Your task to perform on an android device: manage bookmarks in the chrome app Image 0: 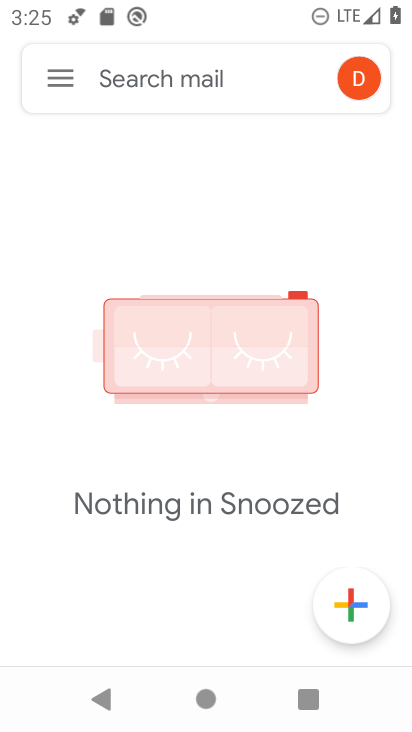
Step 0: press home button
Your task to perform on an android device: manage bookmarks in the chrome app Image 1: 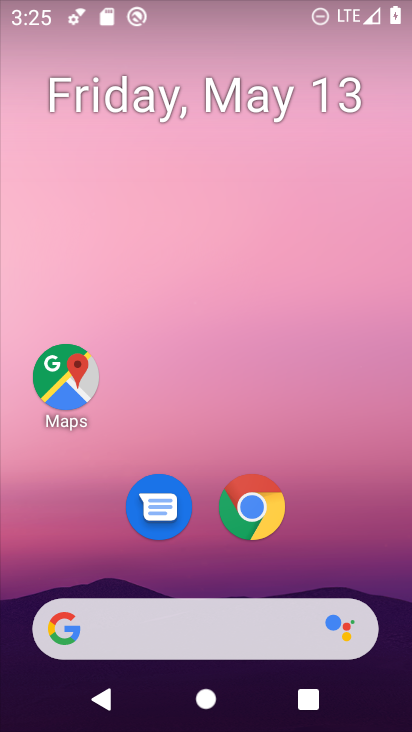
Step 1: click (265, 516)
Your task to perform on an android device: manage bookmarks in the chrome app Image 2: 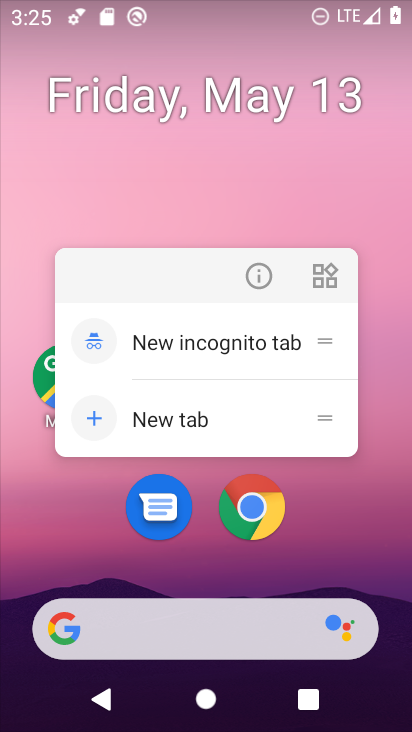
Step 2: click (263, 517)
Your task to perform on an android device: manage bookmarks in the chrome app Image 3: 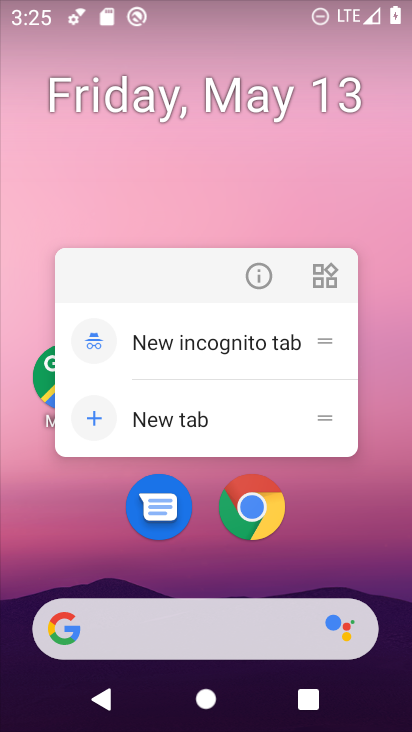
Step 3: click (263, 517)
Your task to perform on an android device: manage bookmarks in the chrome app Image 4: 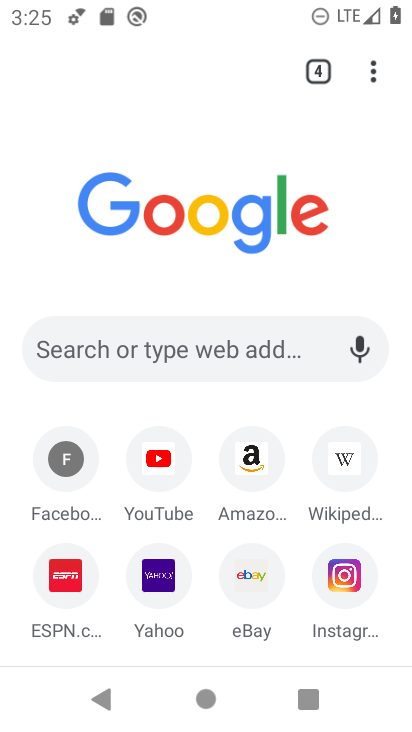
Step 4: click (363, 56)
Your task to perform on an android device: manage bookmarks in the chrome app Image 5: 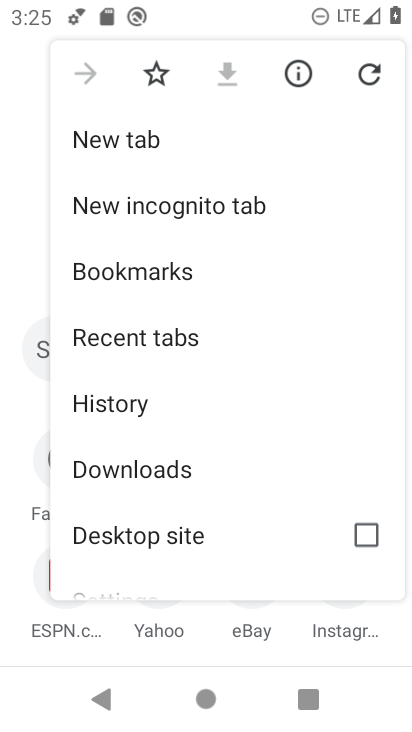
Step 5: click (207, 275)
Your task to perform on an android device: manage bookmarks in the chrome app Image 6: 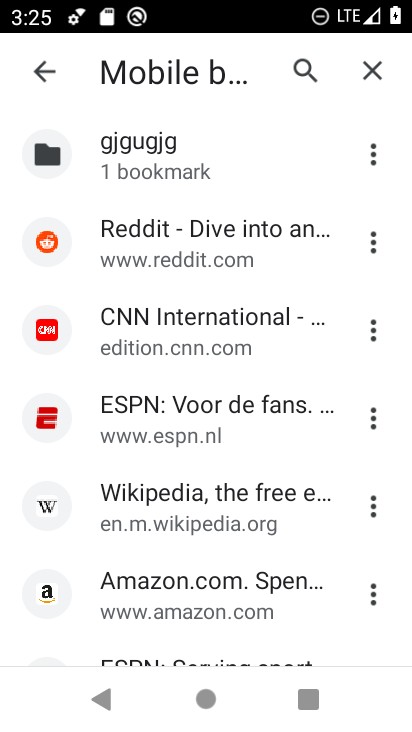
Step 6: drag from (194, 454) to (242, 141)
Your task to perform on an android device: manage bookmarks in the chrome app Image 7: 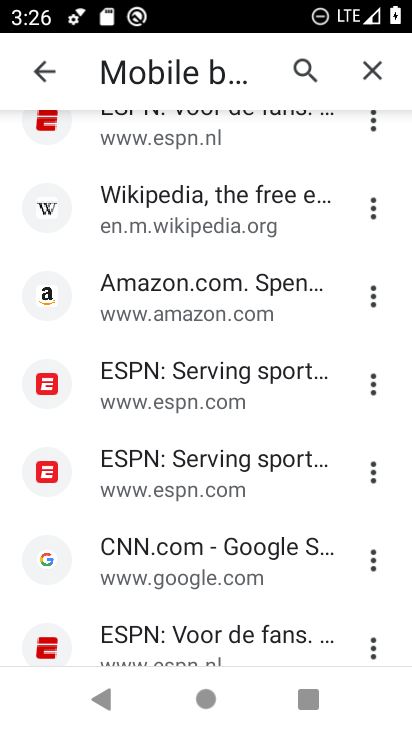
Step 7: click (371, 285)
Your task to perform on an android device: manage bookmarks in the chrome app Image 8: 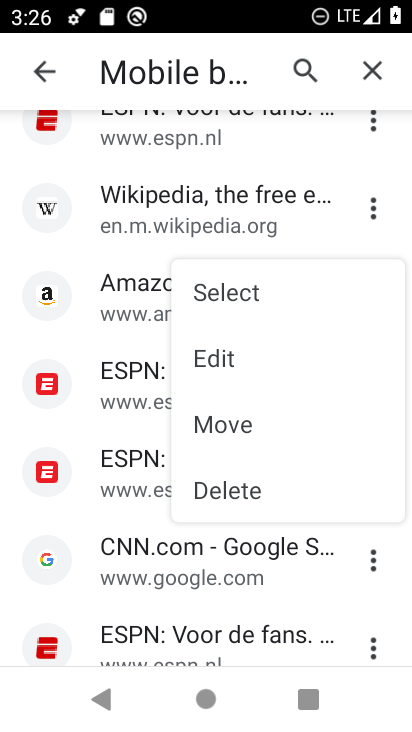
Step 8: click (292, 429)
Your task to perform on an android device: manage bookmarks in the chrome app Image 9: 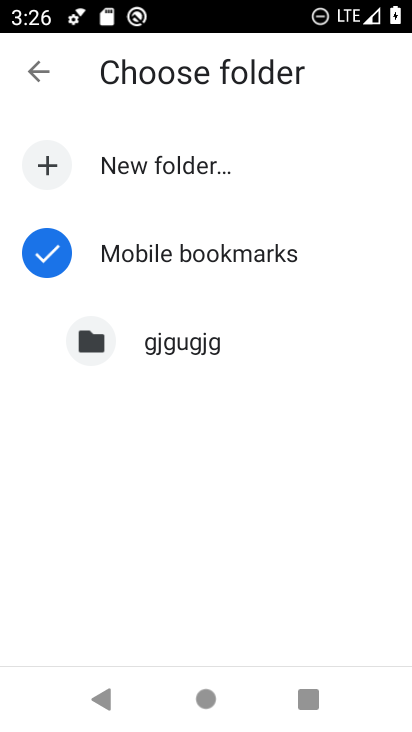
Step 9: click (177, 336)
Your task to perform on an android device: manage bookmarks in the chrome app Image 10: 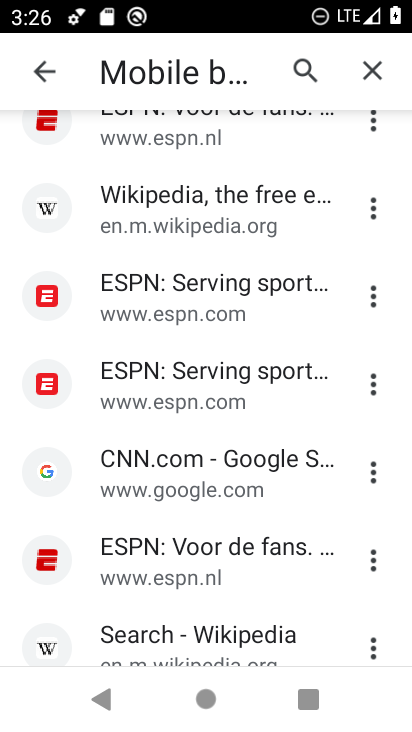
Step 10: click (381, 468)
Your task to perform on an android device: manage bookmarks in the chrome app Image 11: 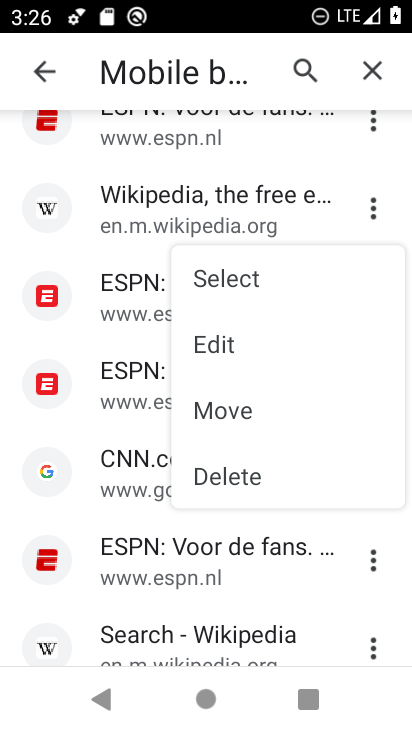
Step 11: click (301, 403)
Your task to perform on an android device: manage bookmarks in the chrome app Image 12: 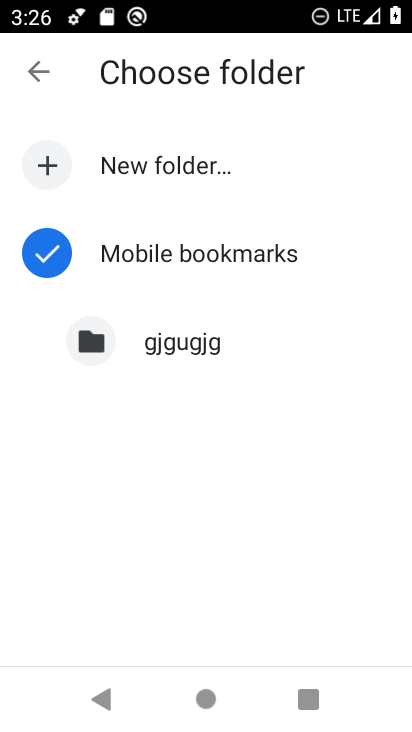
Step 12: click (105, 329)
Your task to perform on an android device: manage bookmarks in the chrome app Image 13: 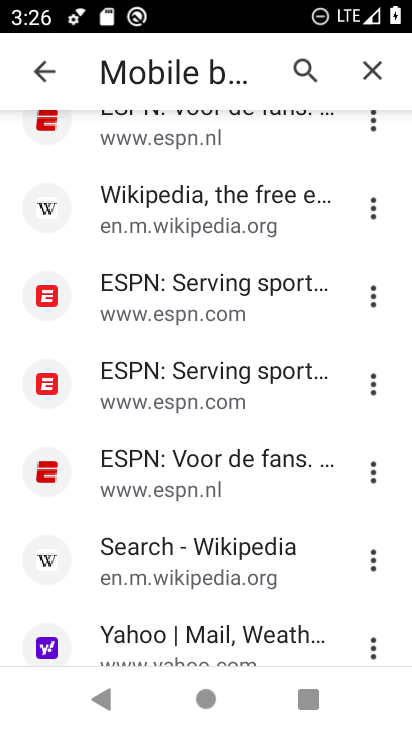
Step 13: task complete